Your task to perform on an android device: open app "Microsoft Authenticator" (install if not already installed) and enter user name: "Cornell@yahoo.com" and password: "bothersome" Image 0: 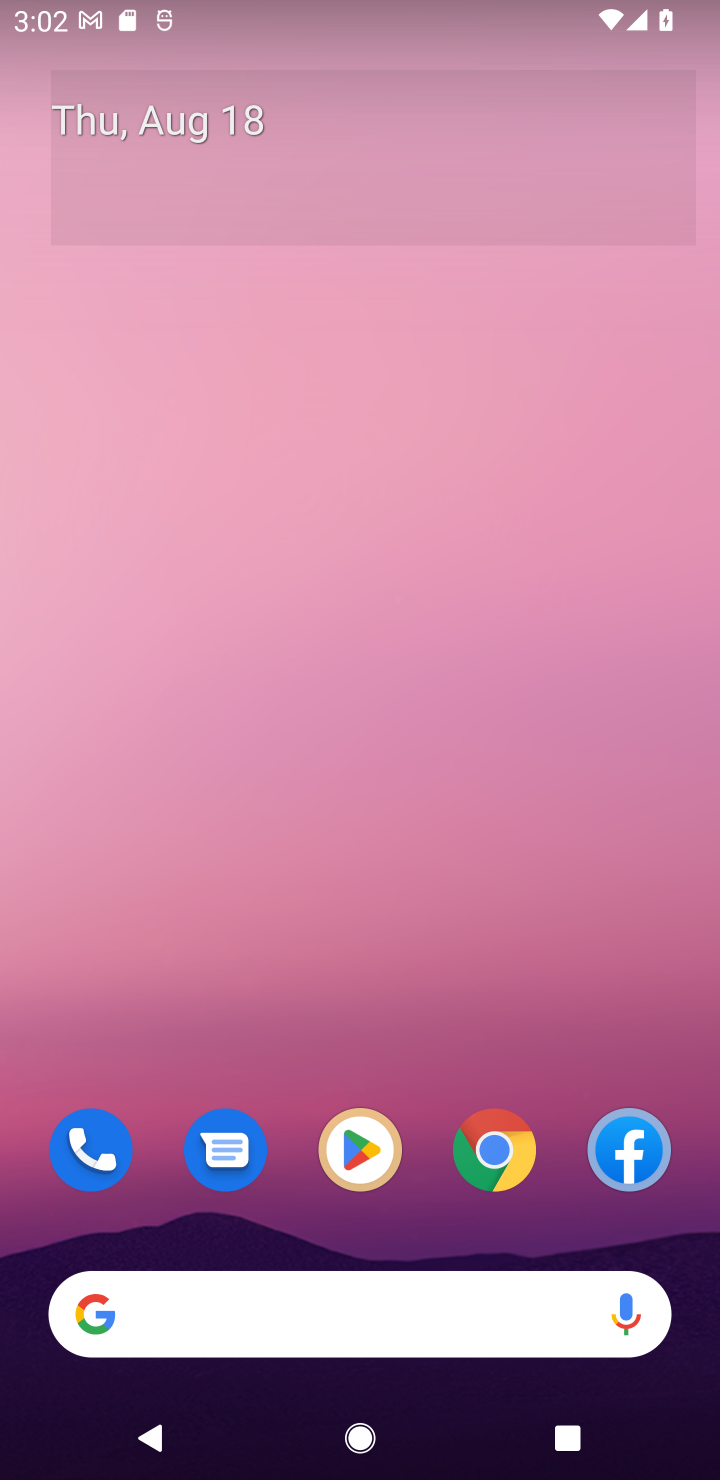
Step 0: click (376, 1150)
Your task to perform on an android device: open app "Microsoft Authenticator" (install if not already installed) and enter user name: "Cornell@yahoo.com" and password: "bothersome" Image 1: 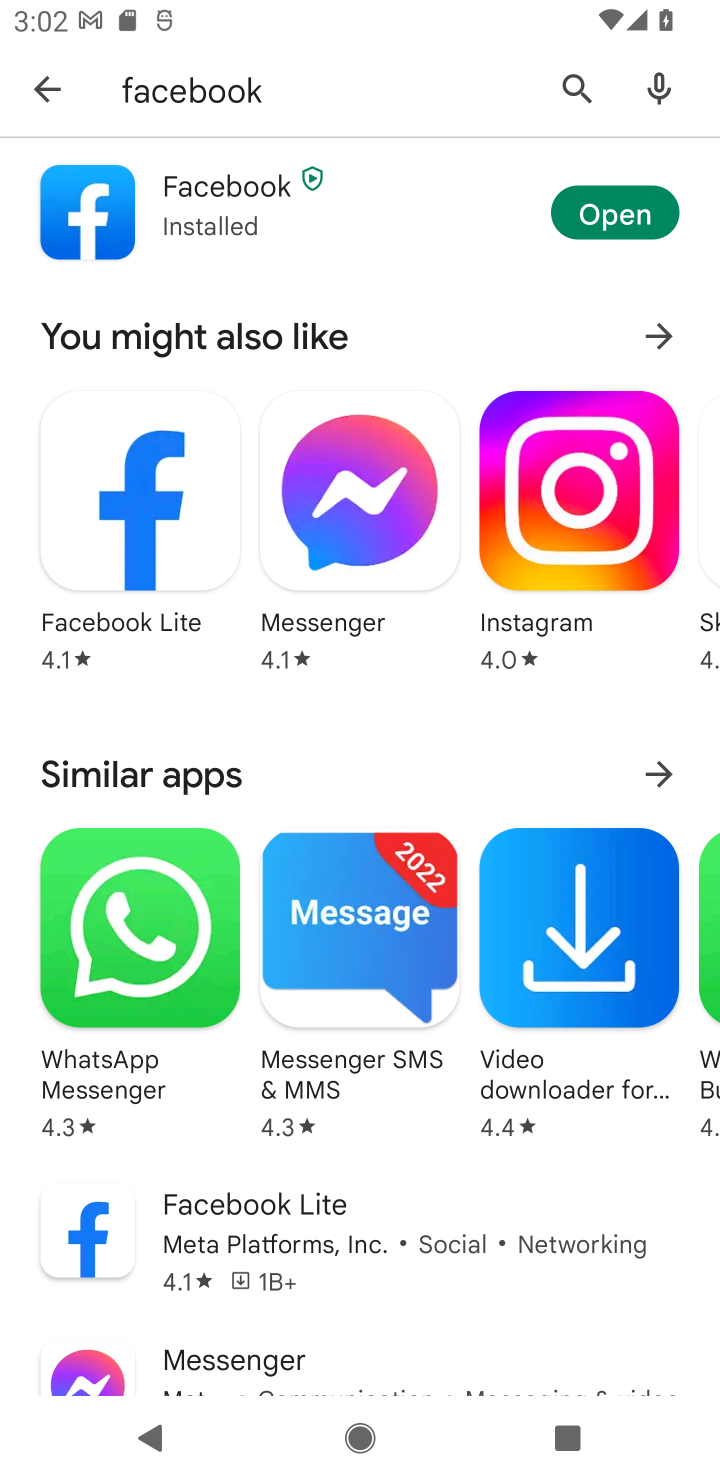
Step 1: click (574, 78)
Your task to perform on an android device: open app "Microsoft Authenticator" (install if not already installed) and enter user name: "Cornell@yahoo.com" and password: "bothersome" Image 2: 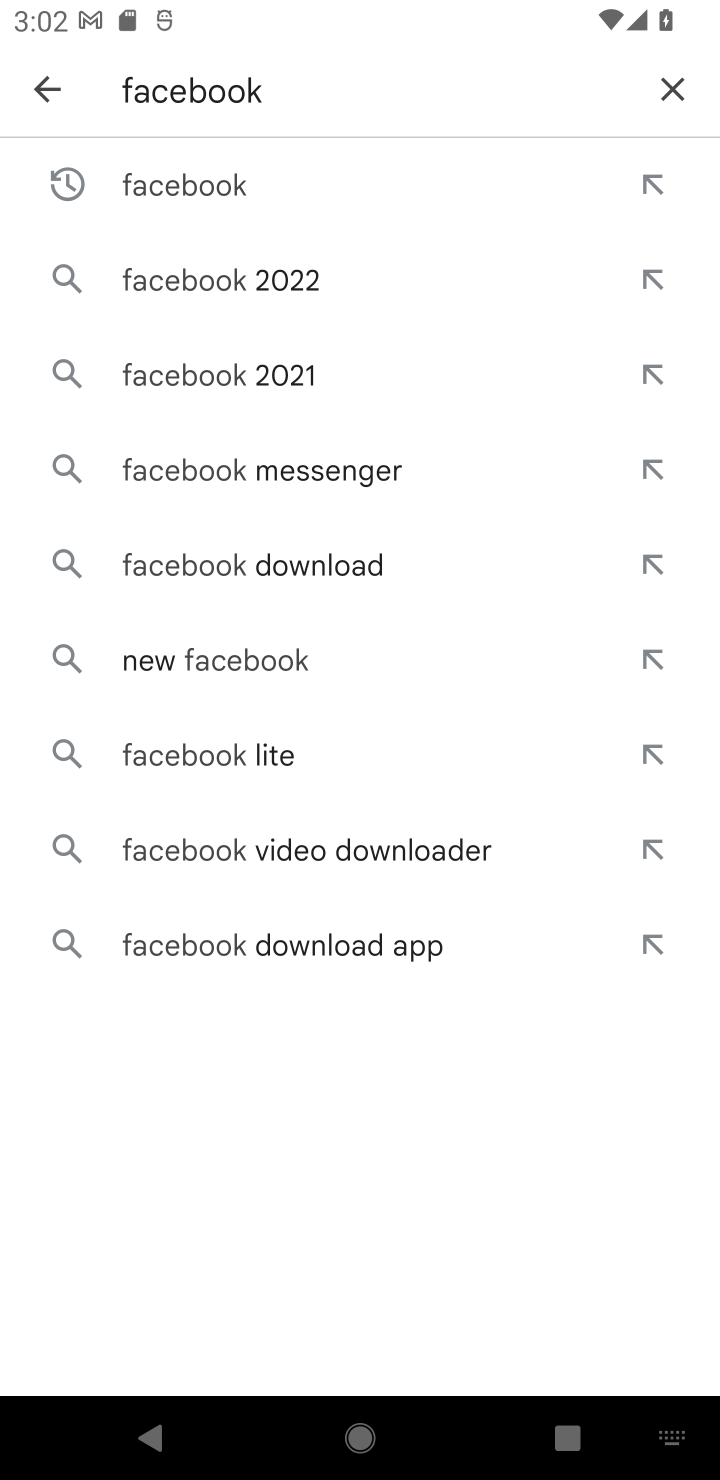
Step 2: click (675, 82)
Your task to perform on an android device: open app "Microsoft Authenticator" (install if not already installed) and enter user name: "Cornell@yahoo.com" and password: "bothersome" Image 3: 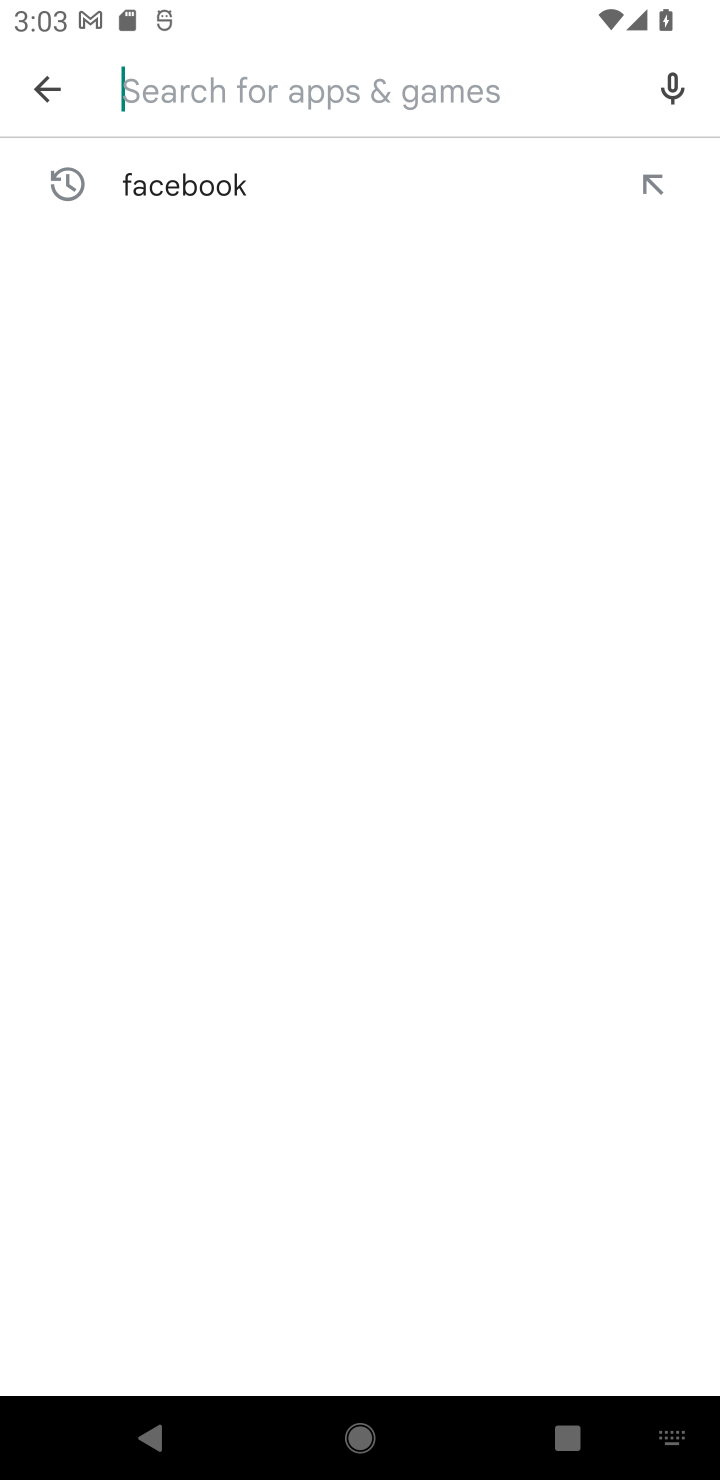
Step 3: type "Microsoft Authenticator"
Your task to perform on an android device: open app "Microsoft Authenticator" (install if not already installed) and enter user name: "Cornell@yahoo.com" and password: "bothersome" Image 4: 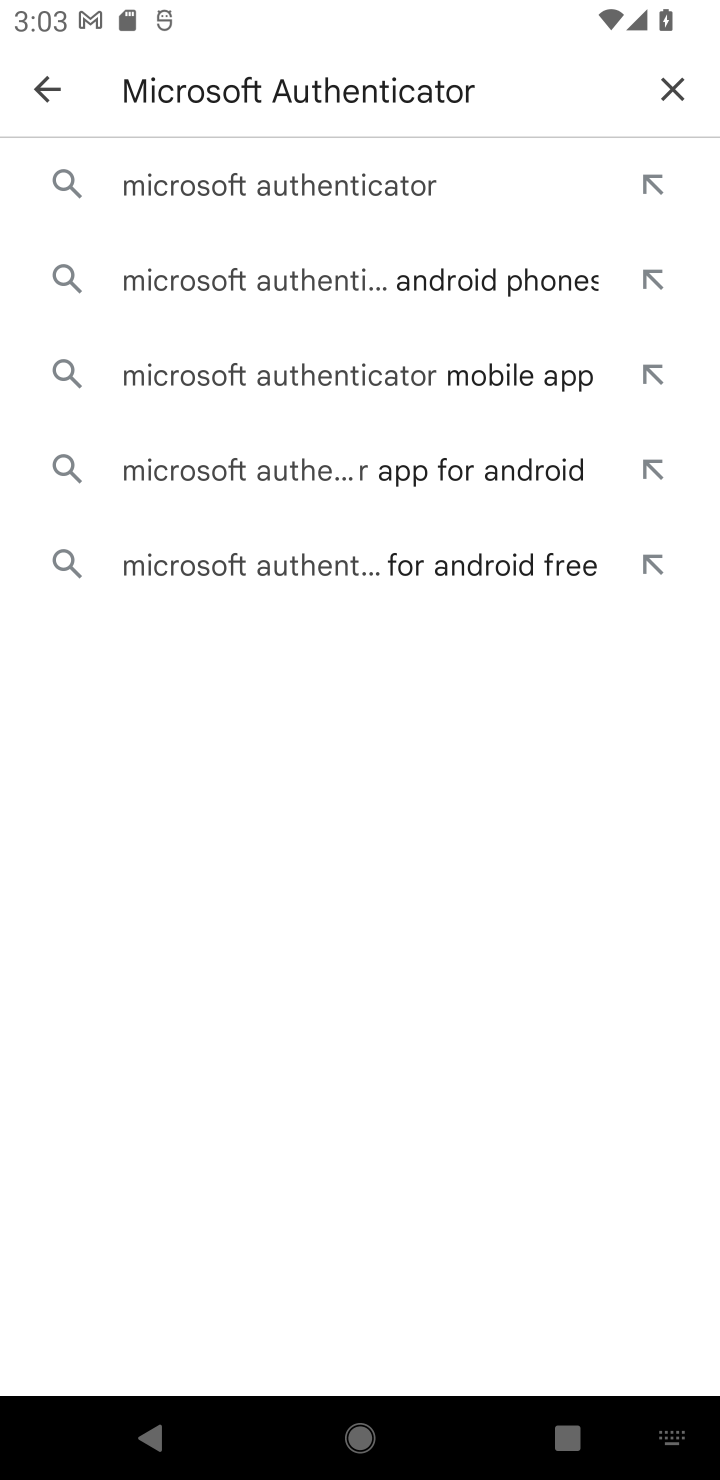
Step 4: click (228, 188)
Your task to perform on an android device: open app "Microsoft Authenticator" (install if not already installed) and enter user name: "Cornell@yahoo.com" and password: "bothersome" Image 5: 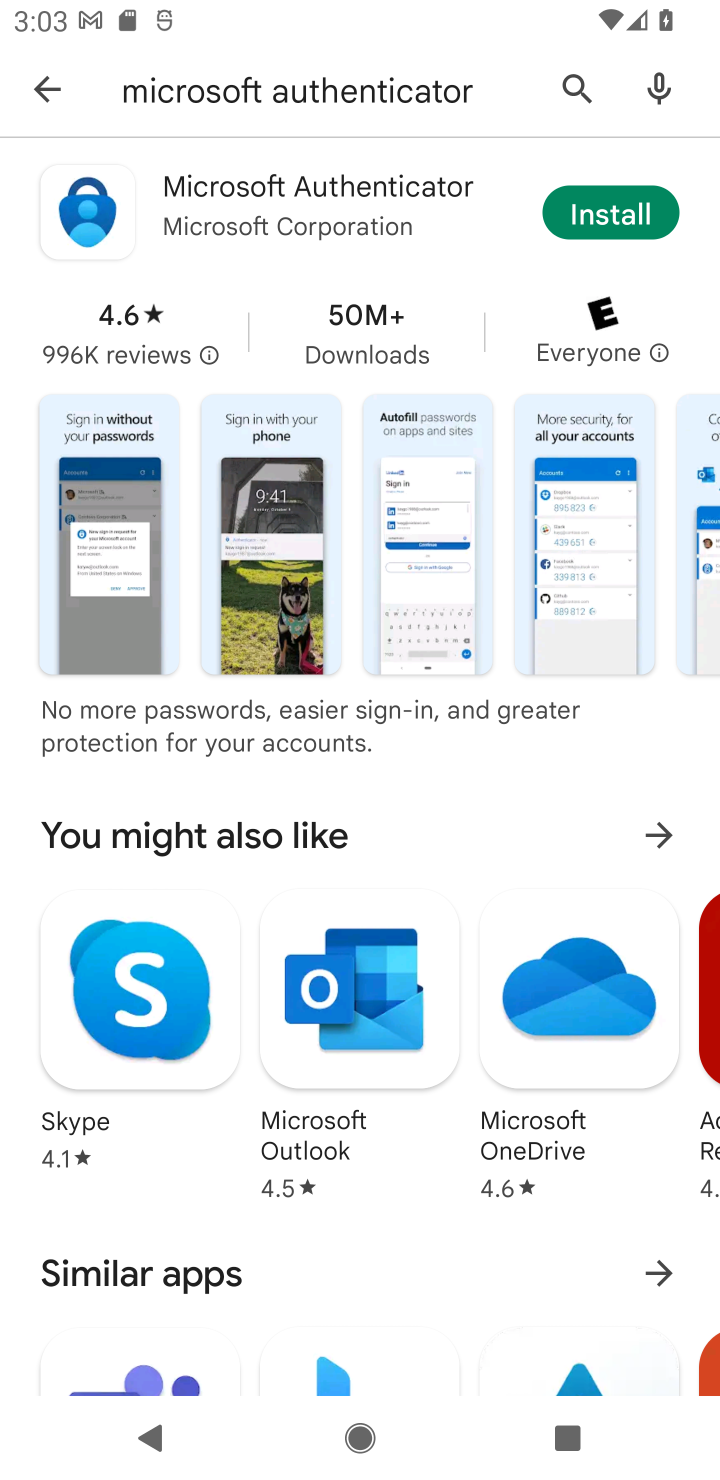
Step 5: click (610, 215)
Your task to perform on an android device: open app "Microsoft Authenticator" (install if not already installed) and enter user name: "Cornell@yahoo.com" and password: "bothersome" Image 6: 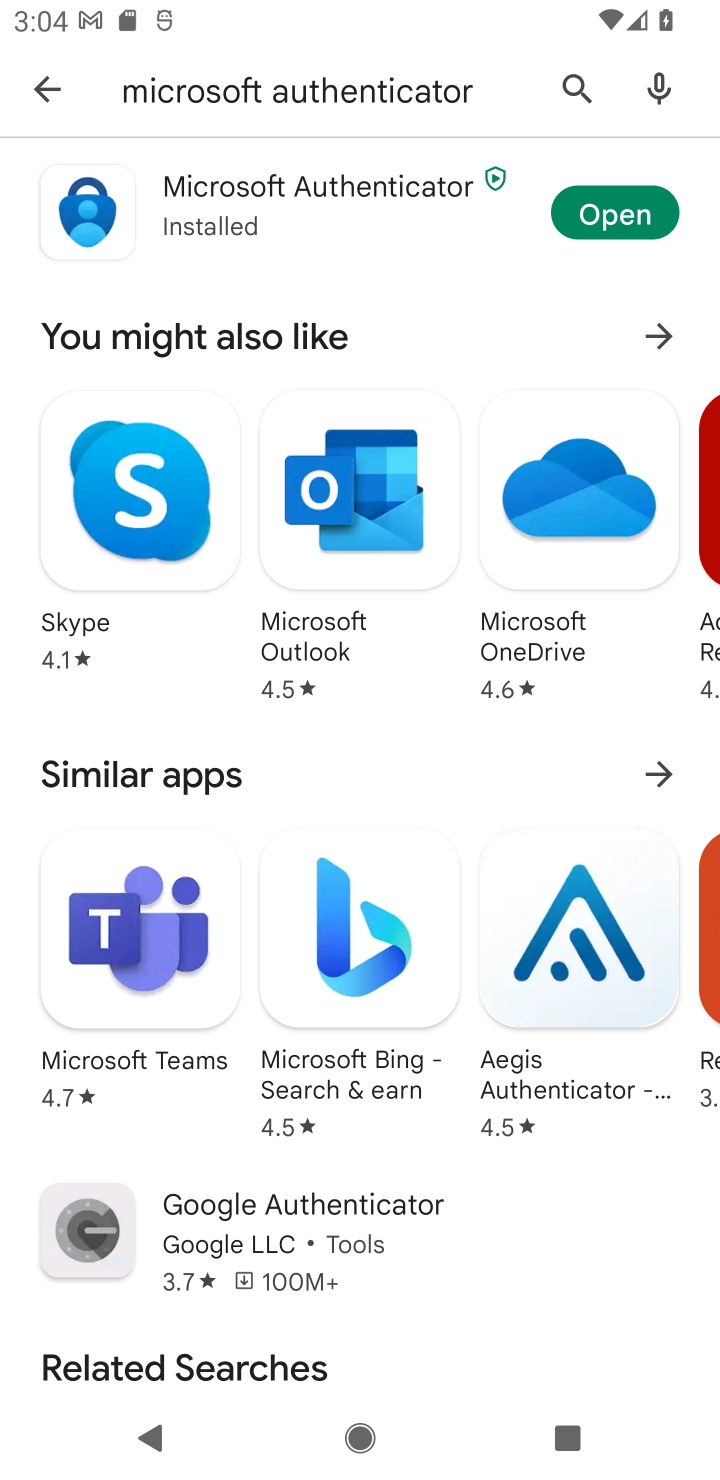
Step 6: click (610, 215)
Your task to perform on an android device: open app "Microsoft Authenticator" (install if not already installed) and enter user name: "Cornell@yahoo.com" and password: "bothersome" Image 7: 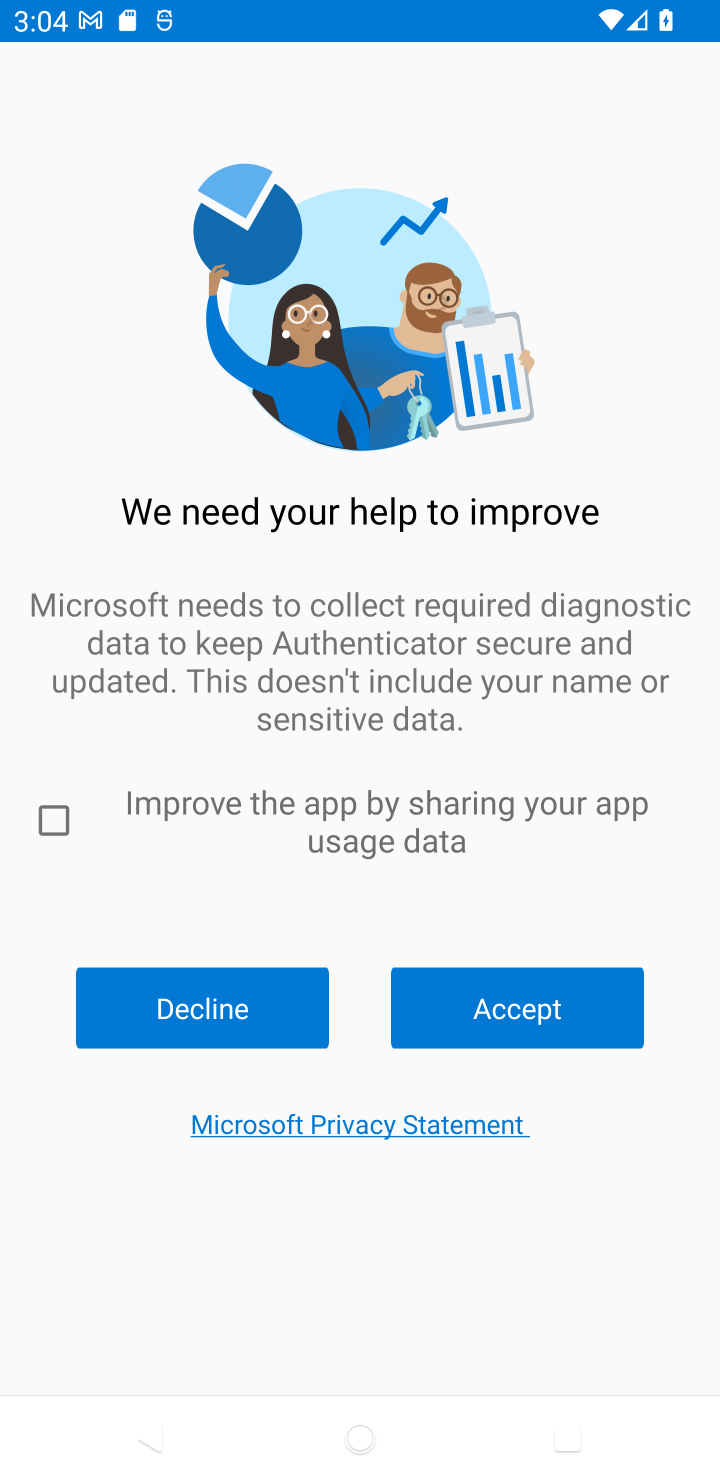
Step 7: click (534, 1020)
Your task to perform on an android device: open app "Microsoft Authenticator" (install if not already installed) and enter user name: "Cornell@yahoo.com" and password: "bothersome" Image 8: 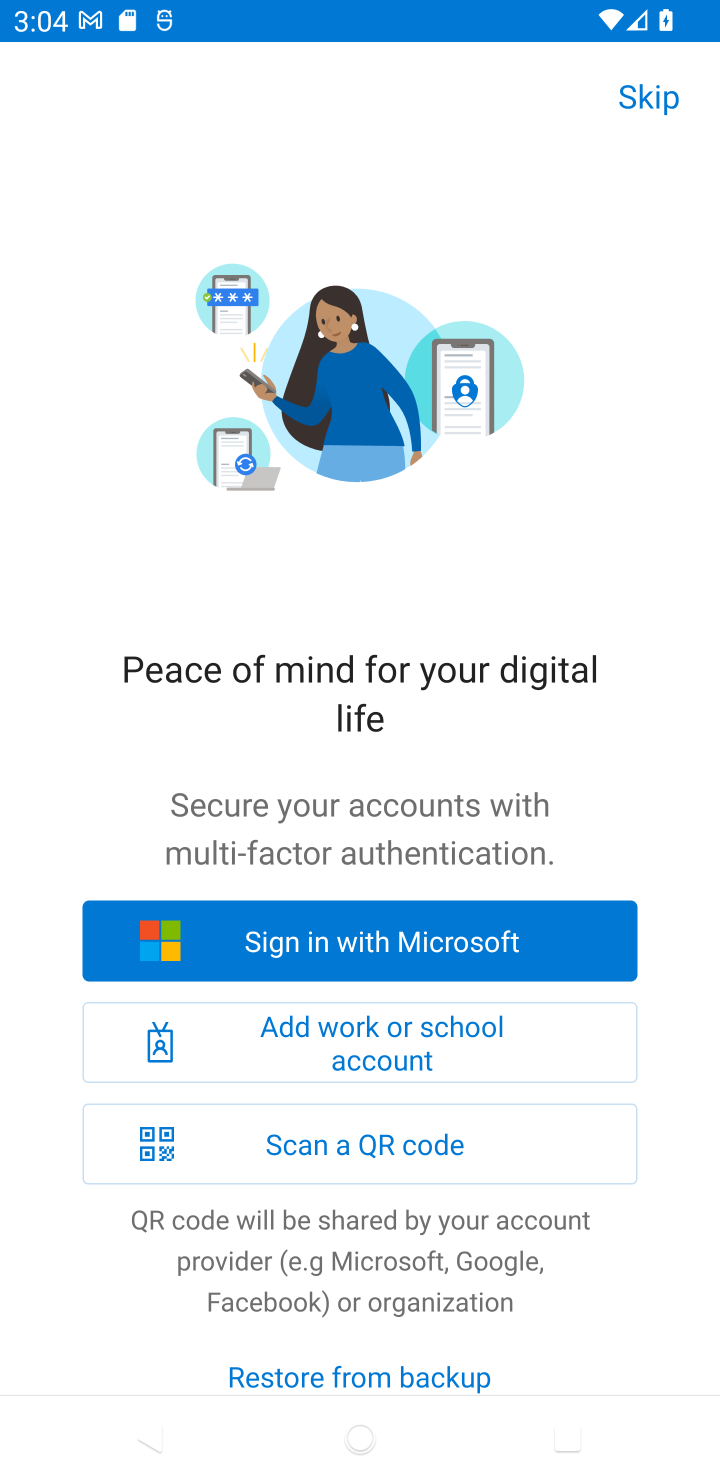
Step 8: click (385, 951)
Your task to perform on an android device: open app "Microsoft Authenticator" (install if not already installed) and enter user name: "Cornell@yahoo.com" and password: "bothersome" Image 9: 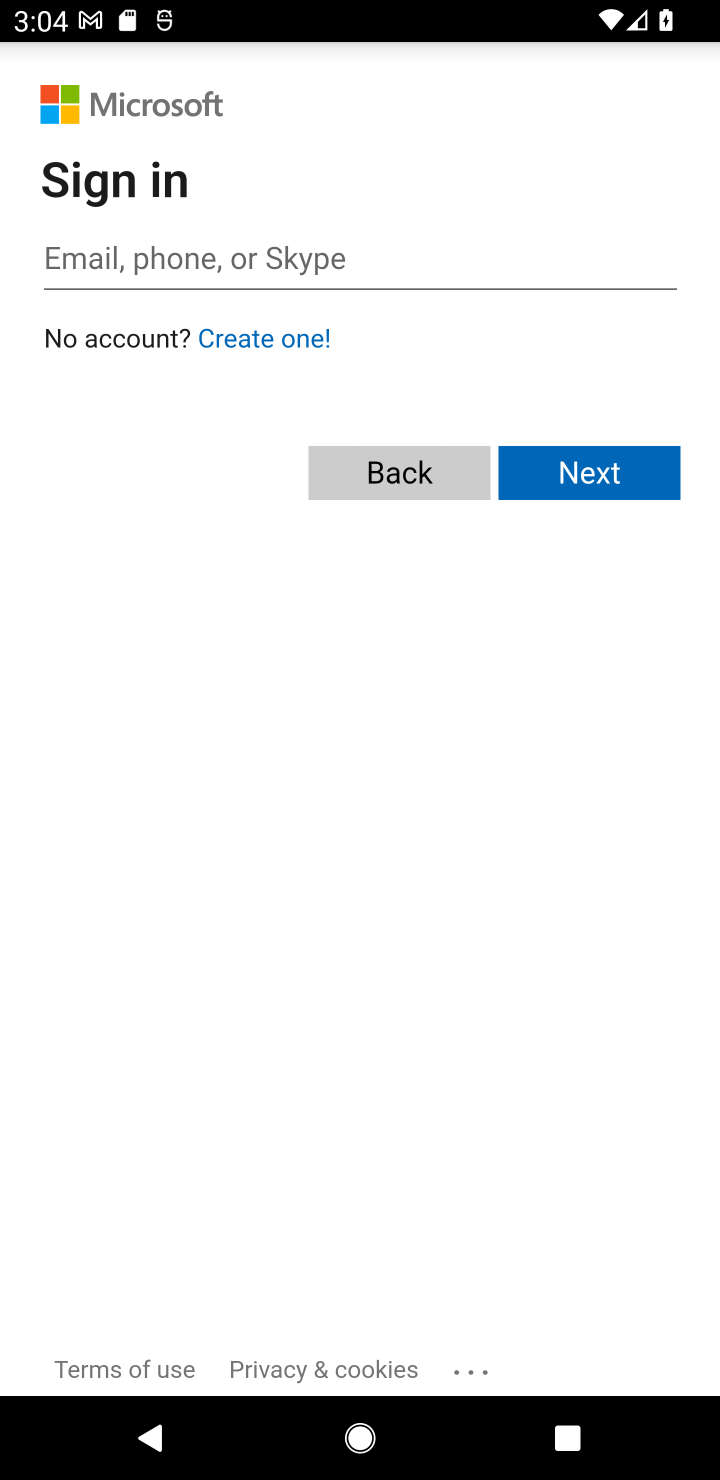
Step 9: click (201, 262)
Your task to perform on an android device: open app "Microsoft Authenticator" (install if not already installed) and enter user name: "Cornell@yahoo.com" and password: "bothersome" Image 10: 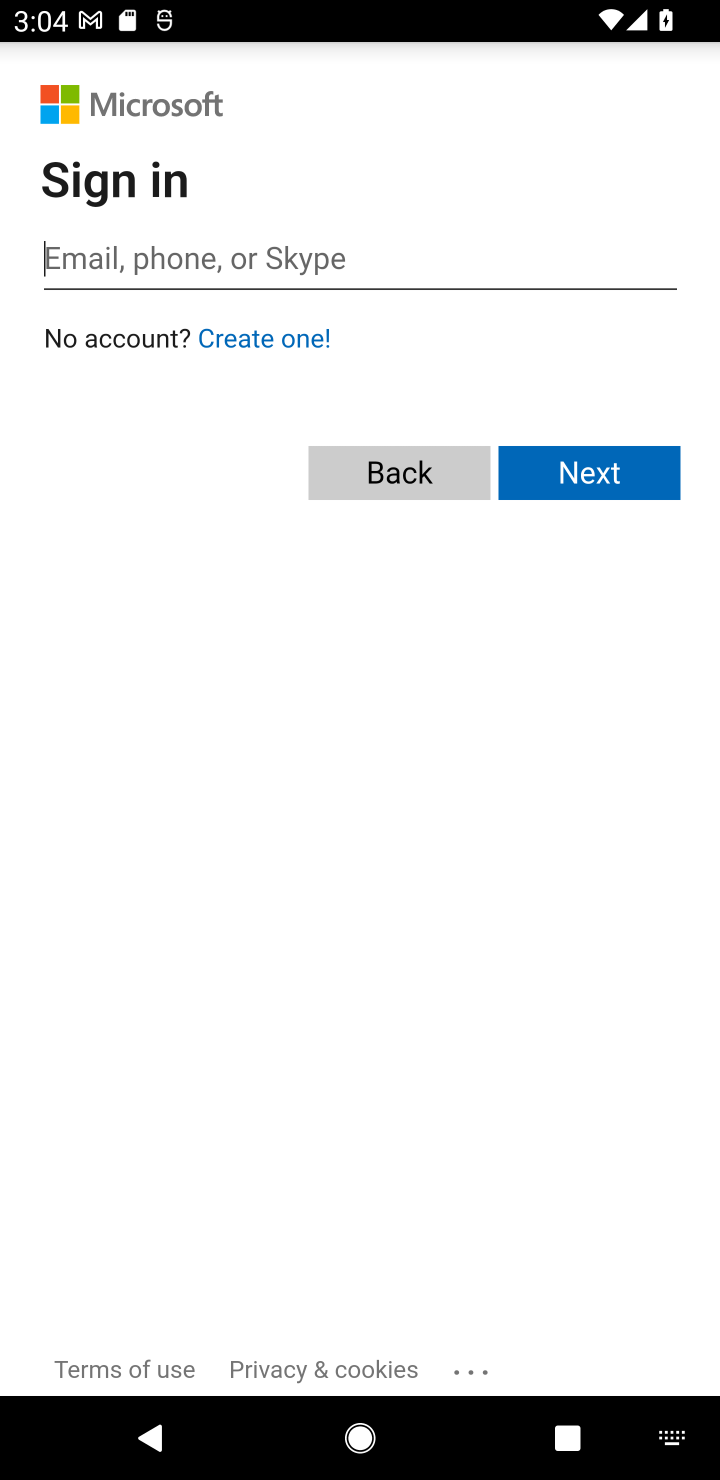
Step 10: type "Cornell@yahoo.com"
Your task to perform on an android device: open app "Microsoft Authenticator" (install if not already installed) and enter user name: "Cornell@yahoo.com" and password: "bothersome" Image 11: 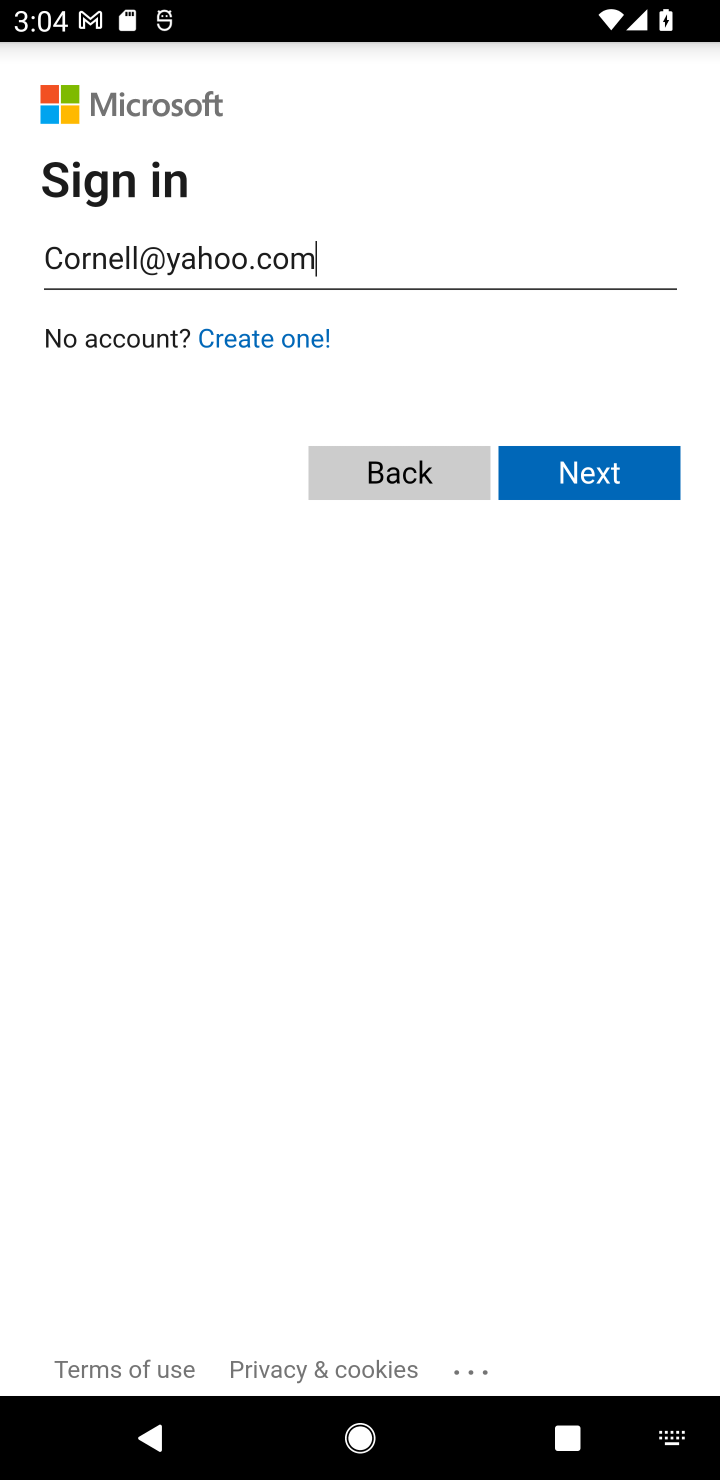
Step 11: click (599, 484)
Your task to perform on an android device: open app "Microsoft Authenticator" (install if not already installed) and enter user name: "Cornell@yahoo.com" and password: "bothersome" Image 12: 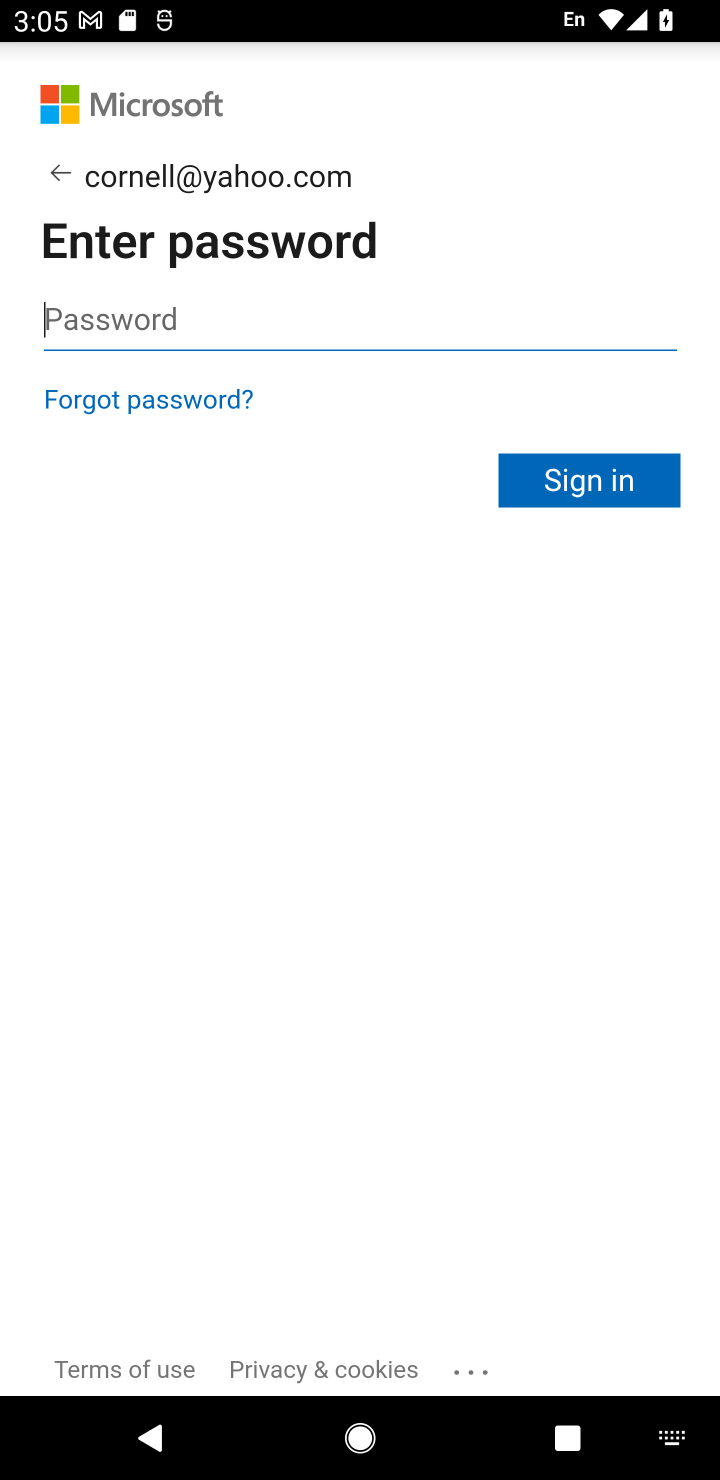
Step 12: type "bothersome"
Your task to perform on an android device: open app "Microsoft Authenticator" (install if not already installed) and enter user name: "Cornell@yahoo.com" and password: "bothersome" Image 13: 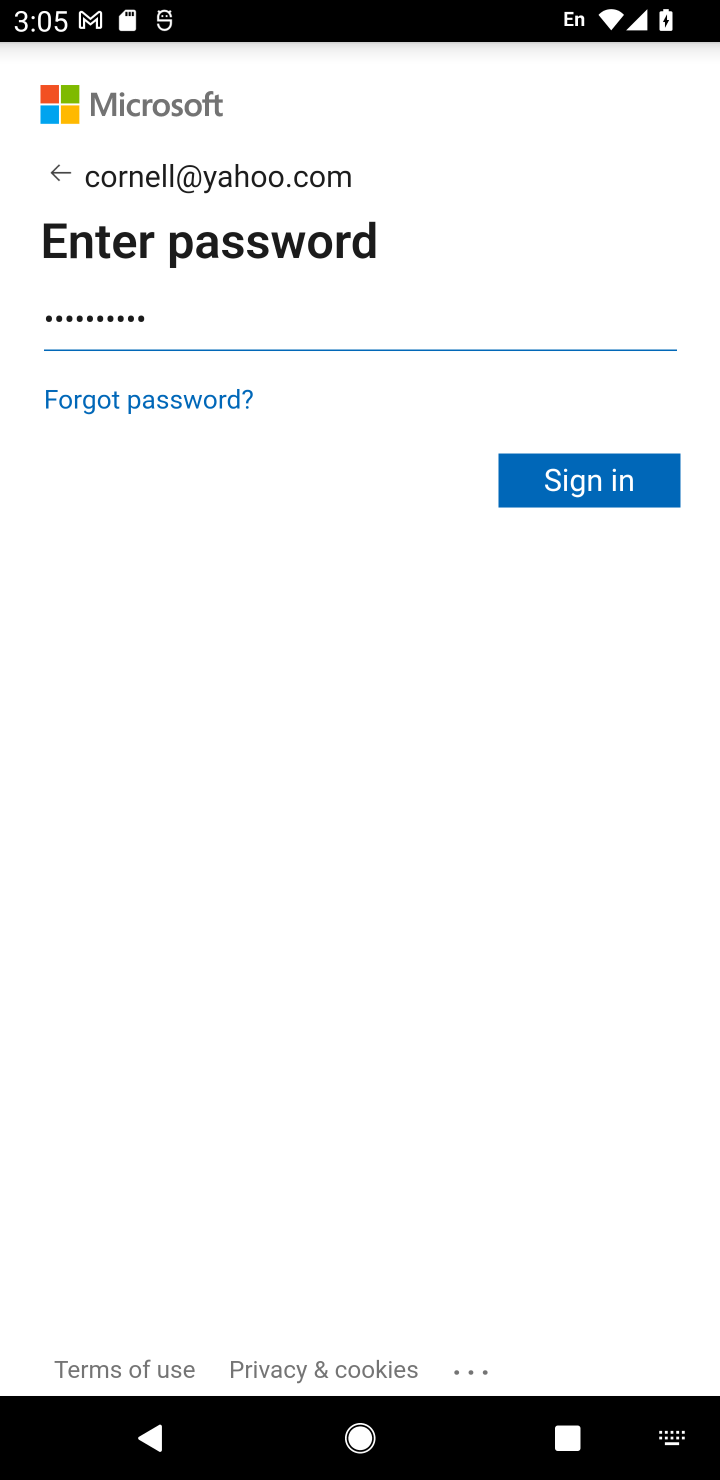
Step 13: task complete